Your task to perform on an android device: Open ESPN.com Image 0: 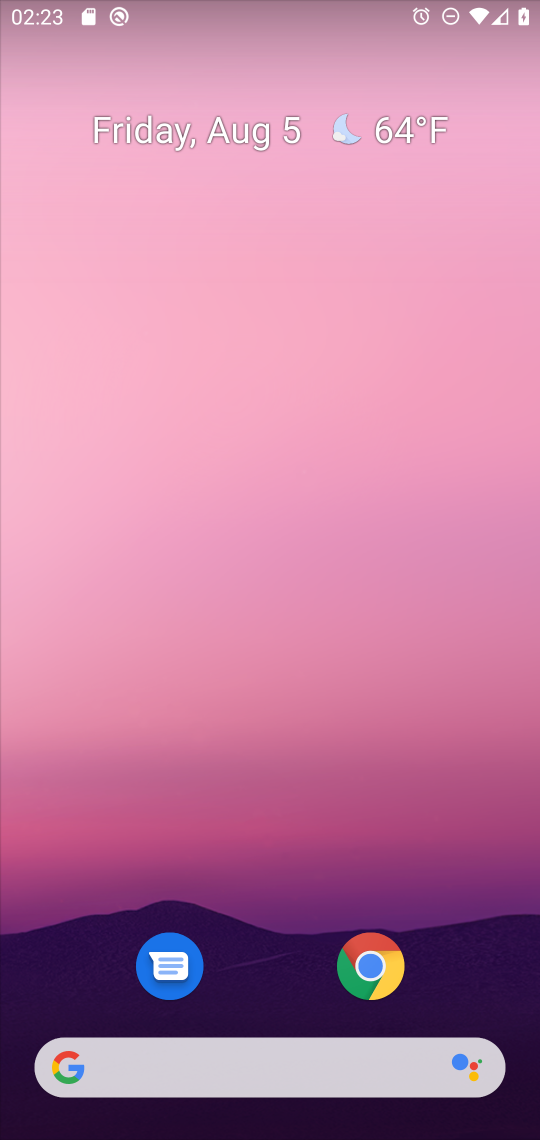
Step 0: click (298, 1068)
Your task to perform on an android device: Open ESPN.com Image 1: 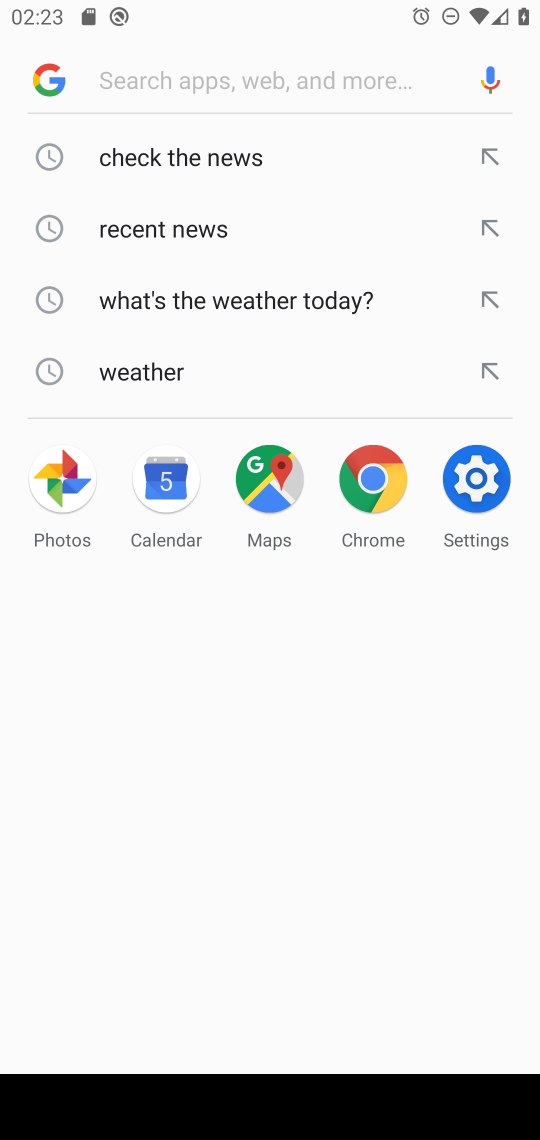
Step 1: type "espn.com"
Your task to perform on an android device: Open ESPN.com Image 2: 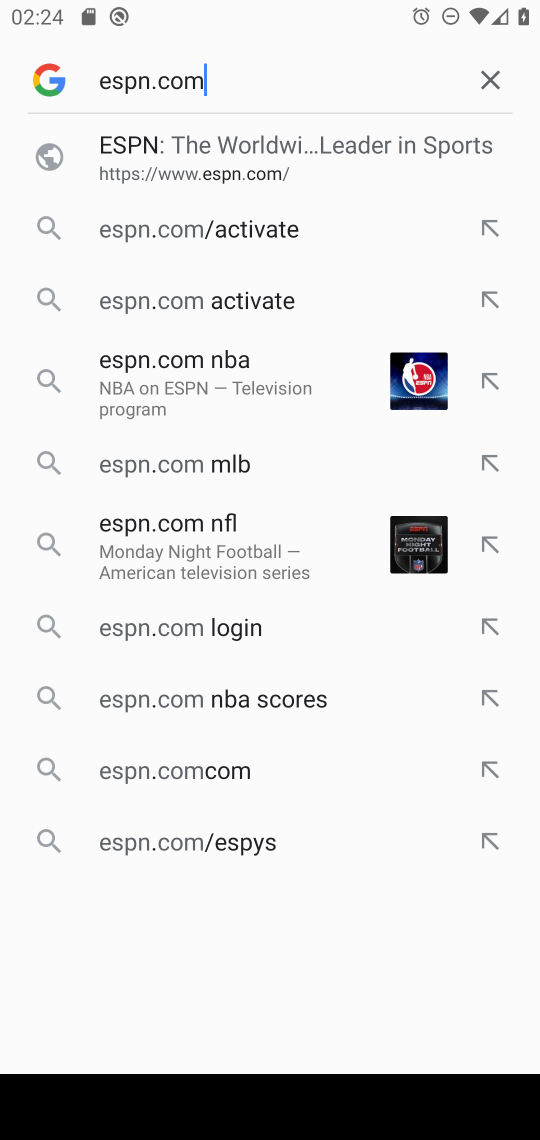
Step 2: click (313, 146)
Your task to perform on an android device: Open ESPN.com Image 3: 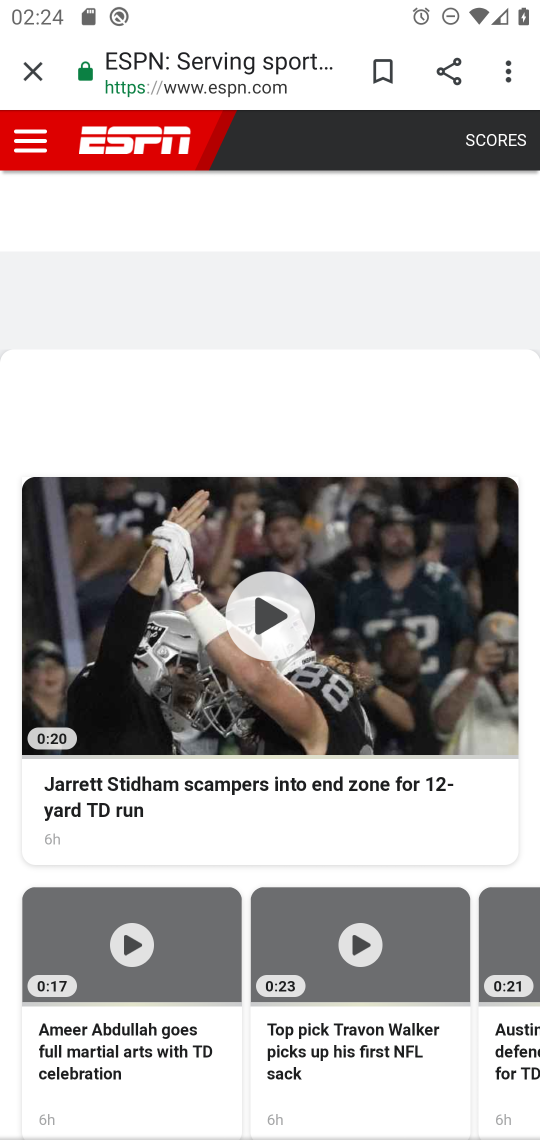
Step 3: task complete